Your task to perform on an android device: Open calendar and show me the third week of next month Image 0: 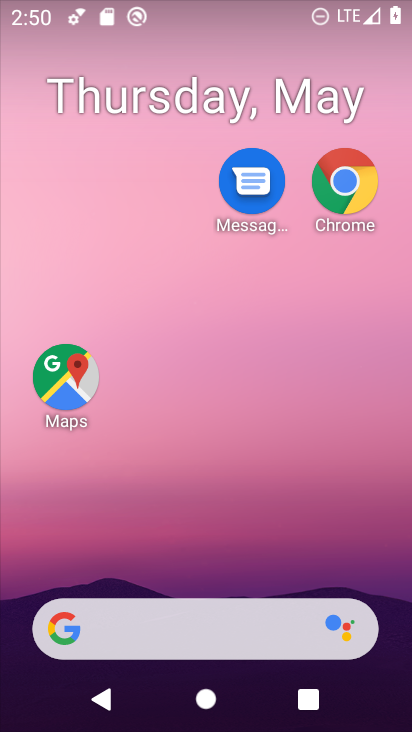
Step 0: drag from (256, 591) to (320, 31)
Your task to perform on an android device: Open calendar and show me the third week of next month Image 1: 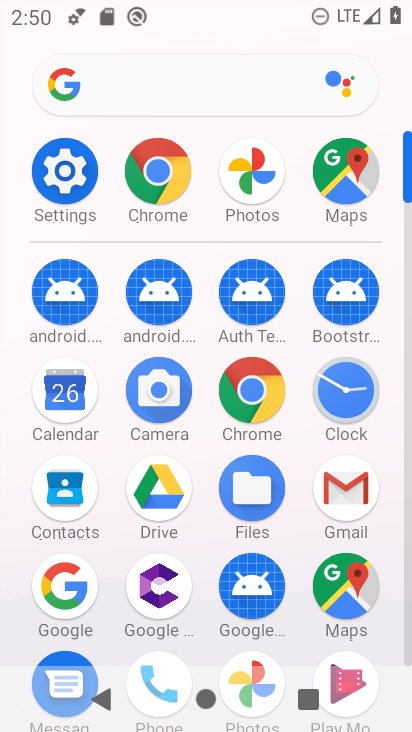
Step 1: click (66, 390)
Your task to perform on an android device: Open calendar and show me the third week of next month Image 2: 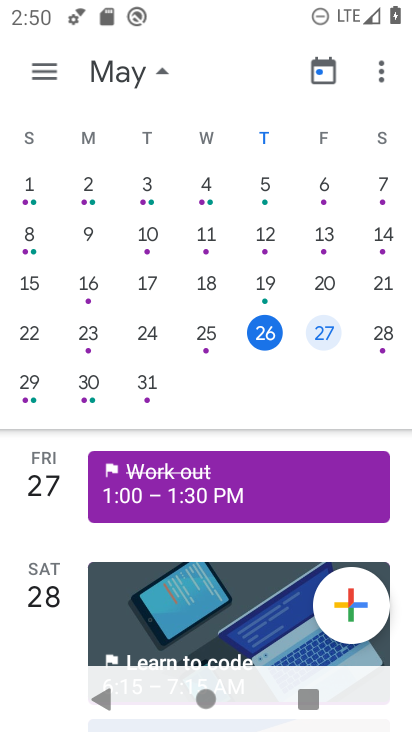
Step 2: drag from (375, 235) to (23, 268)
Your task to perform on an android device: Open calendar and show me the third week of next month Image 3: 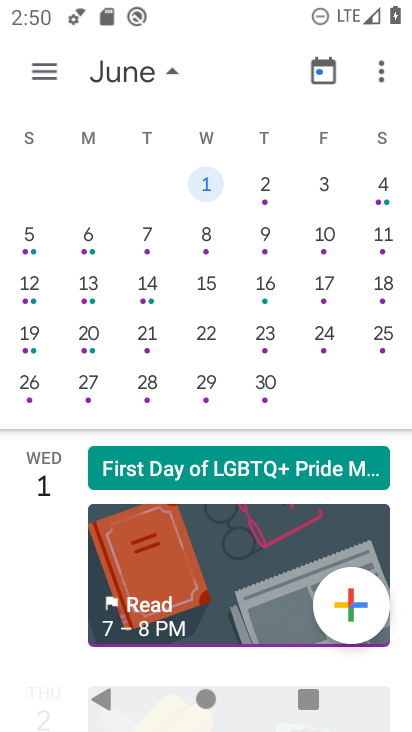
Step 3: click (201, 281)
Your task to perform on an android device: Open calendar and show me the third week of next month Image 4: 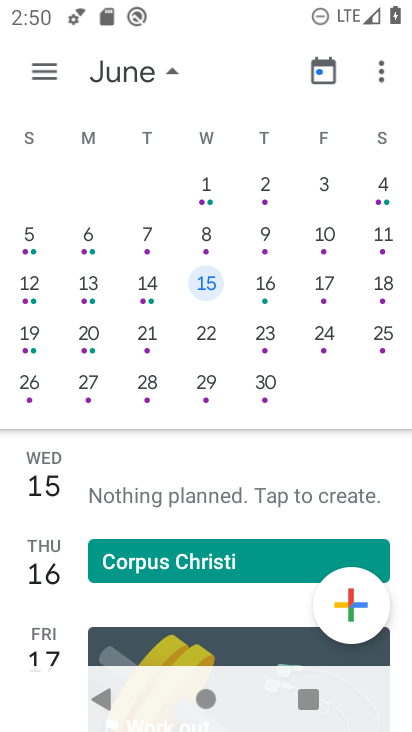
Step 4: task complete